Your task to perform on an android device: Open Google Chrome and click the shortcut for Amazon.com Image 0: 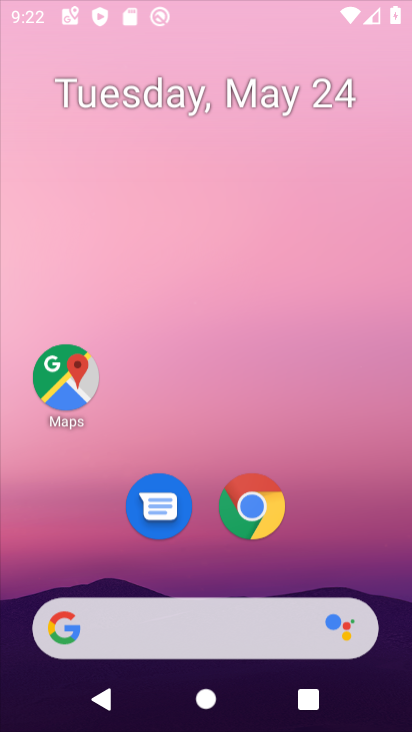
Step 0: click (258, 506)
Your task to perform on an android device: Open Google Chrome and click the shortcut for Amazon.com Image 1: 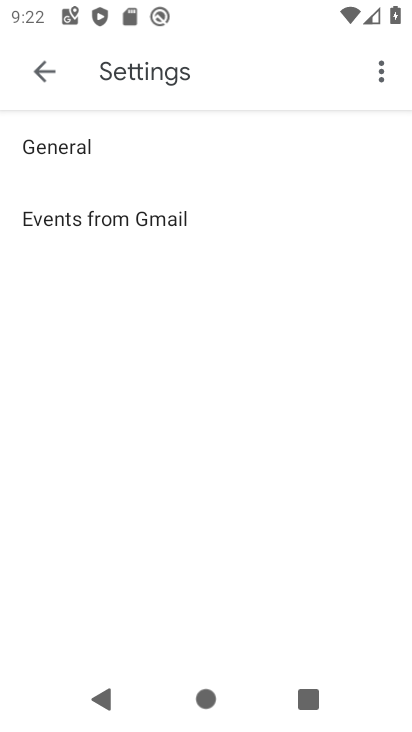
Step 1: press home button
Your task to perform on an android device: Open Google Chrome and click the shortcut for Amazon.com Image 2: 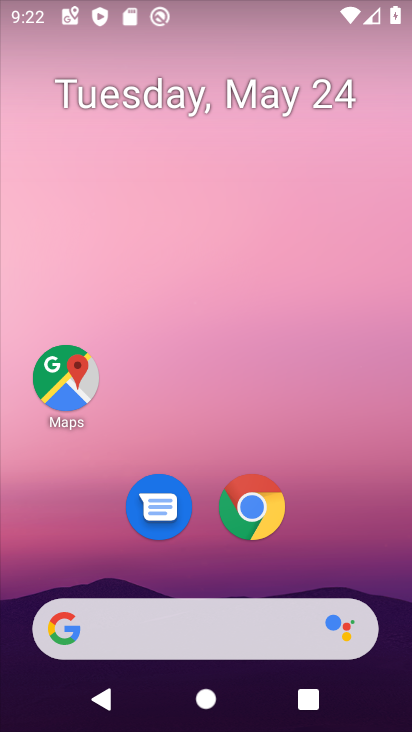
Step 2: click (261, 512)
Your task to perform on an android device: Open Google Chrome and click the shortcut for Amazon.com Image 3: 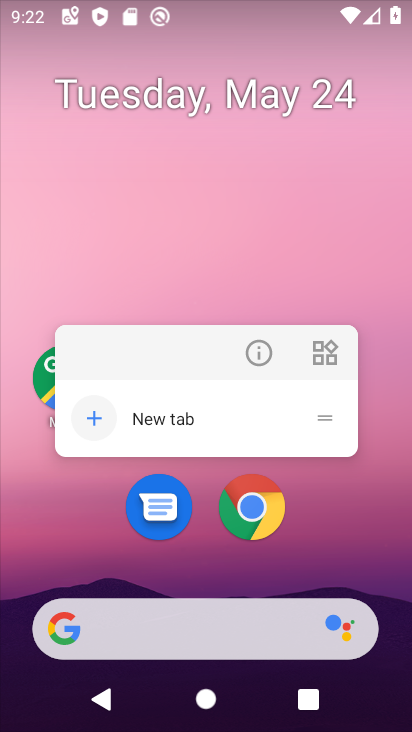
Step 3: click (243, 522)
Your task to perform on an android device: Open Google Chrome and click the shortcut for Amazon.com Image 4: 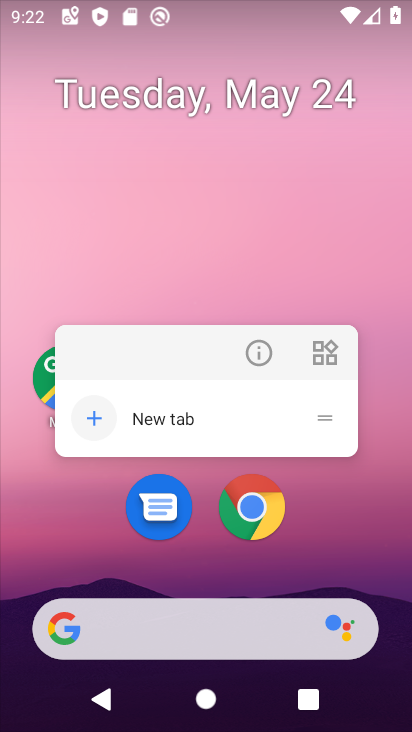
Step 4: click (252, 510)
Your task to perform on an android device: Open Google Chrome and click the shortcut for Amazon.com Image 5: 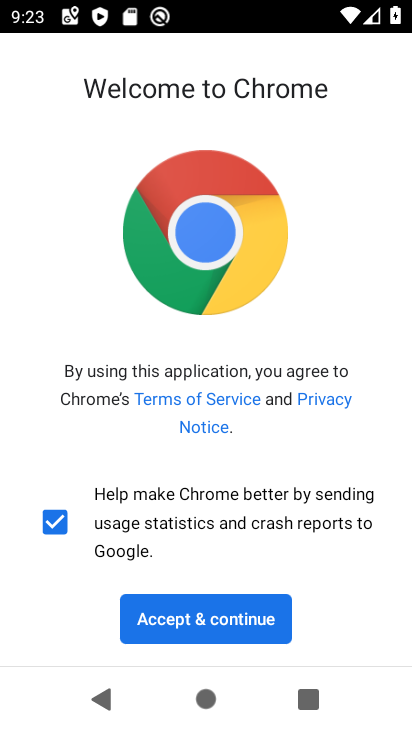
Step 5: click (259, 619)
Your task to perform on an android device: Open Google Chrome and click the shortcut for Amazon.com Image 6: 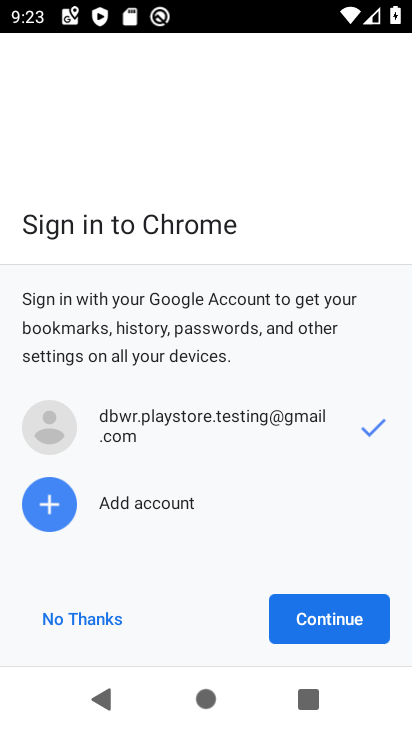
Step 6: click (355, 619)
Your task to perform on an android device: Open Google Chrome and click the shortcut for Amazon.com Image 7: 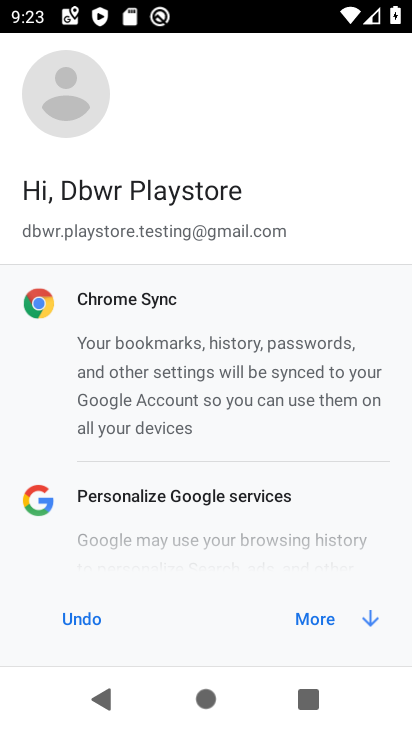
Step 7: click (322, 596)
Your task to perform on an android device: Open Google Chrome and click the shortcut for Amazon.com Image 8: 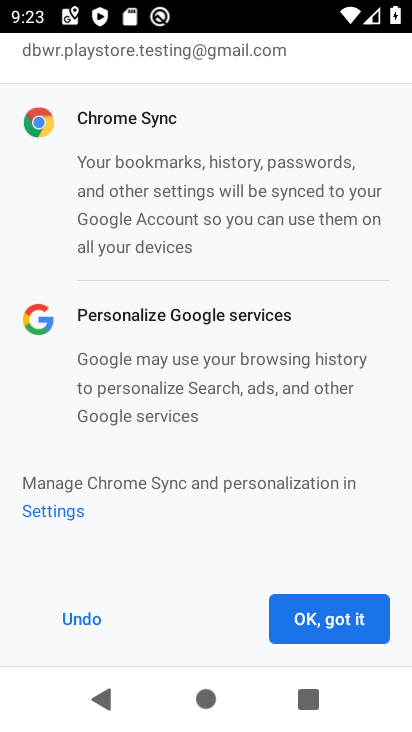
Step 8: click (352, 619)
Your task to perform on an android device: Open Google Chrome and click the shortcut for Amazon.com Image 9: 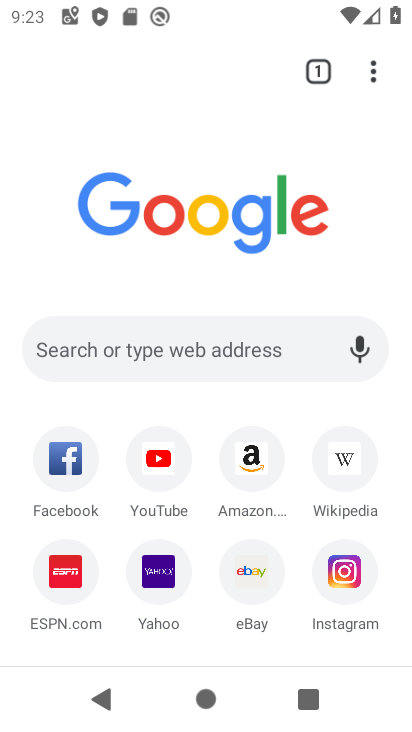
Step 9: click (254, 474)
Your task to perform on an android device: Open Google Chrome and click the shortcut for Amazon.com Image 10: 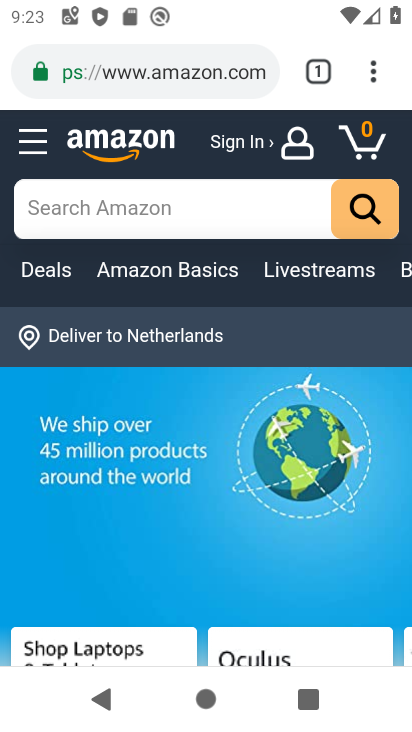
Step 10: task complete